Your task to perform on an android device: turn off data saver in the chrome app Image 0: 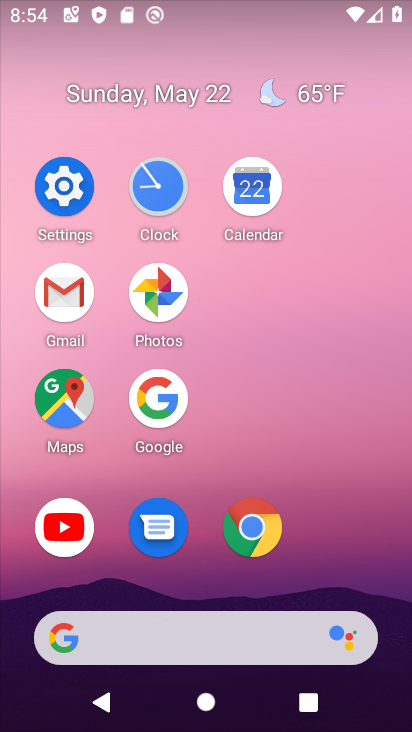
Step 0: click (260, 530)
Your task to perform on an android device: turn off data saver in the chrome app Image 1: 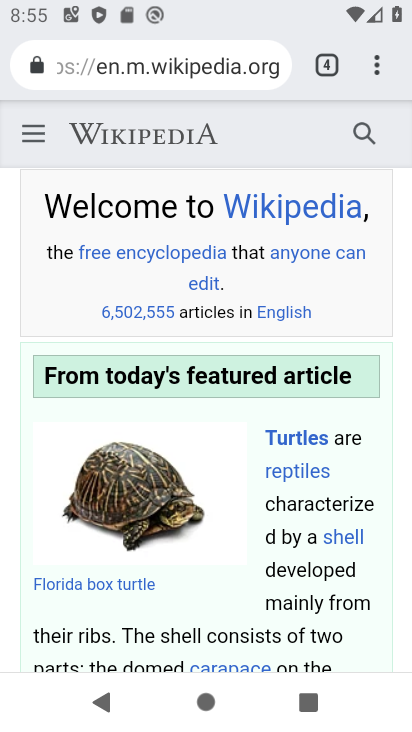
Step 1: click (389, 71)
Your task to perform on an android device: turn off data saver in the chrome app Image 2: 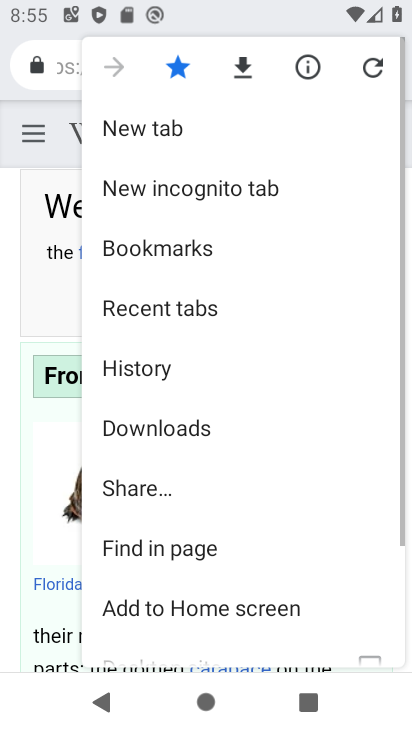
Step 2: drag from (246, 549) to (270, 67)
Your task to perform on an android device: turn off data saver in the chrome app Image 3: 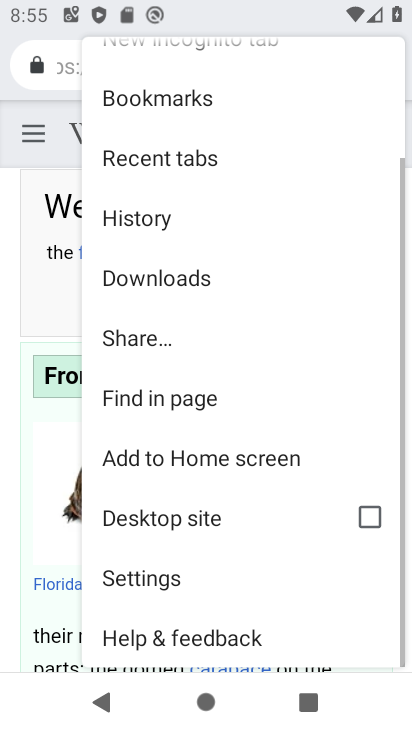
Step 3: click (173, 576)
Your task to perform on an android device: turn off data saver in the chrome app Image 4: 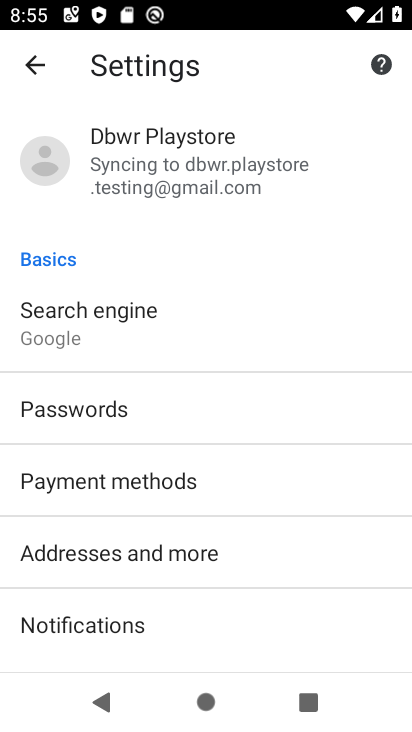
Step 4: drag from (176, 490) to (224, 162)
Your task to perform on an android device: turn off data saver in the chrome app Image 5: 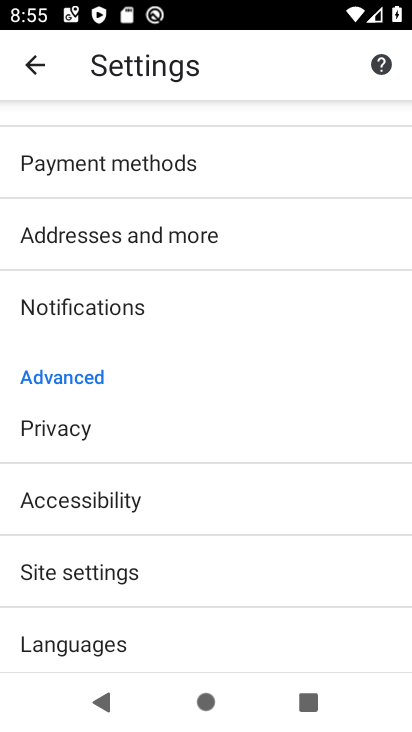
Step 5: drag from (219, 607) to (259, 284)
Your task to perform on an android device: turn off data saver in the chrome app Image 6: 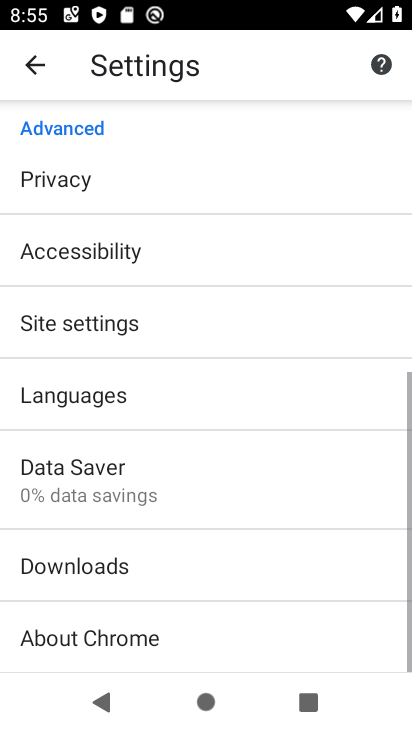
Step 6: click (242, 472)
Your task to perform on an android device: turn off data saver in the chrome app Image 7: 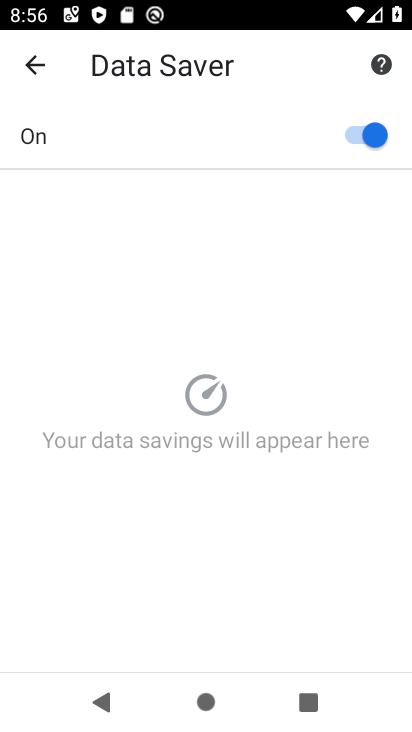
Step 7: click (371, 136)
Your task to perform on an android device: turn off data saver in the chrome app Image 8: 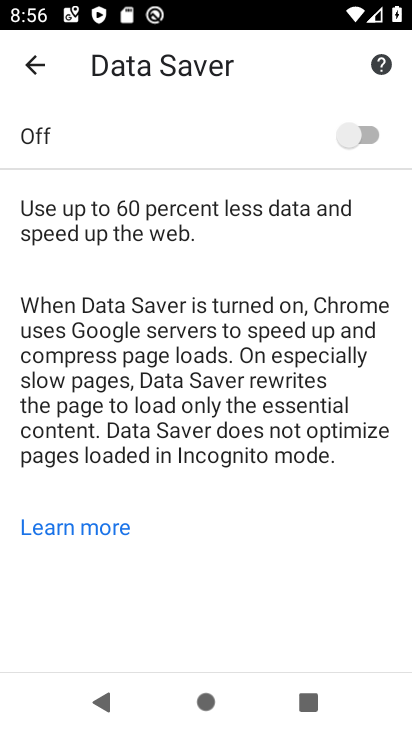
Step 8: task complete